Your task to perform on an android device: What's on my calendar today? Image 0: 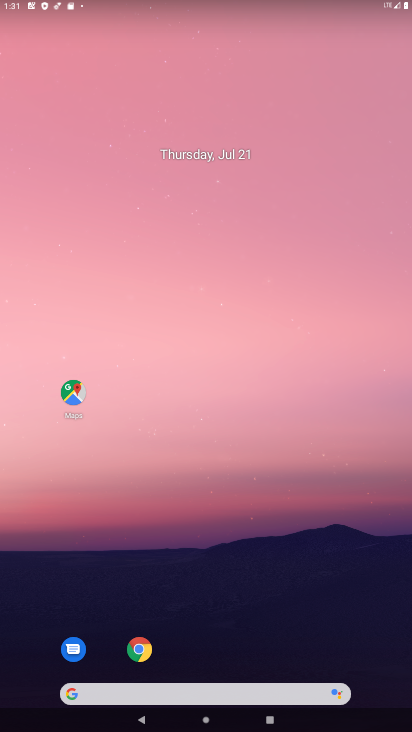
Step 0: drag from (227, 730) to (227, 31)
Your task to perform on an android device: What's on my calendar today? Image 1: 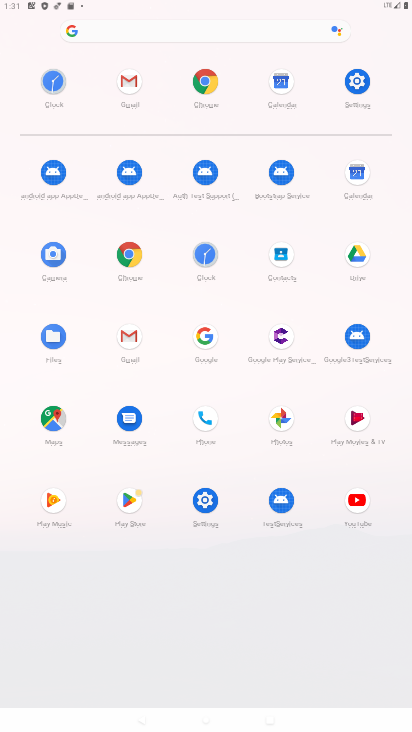
Step 1: click (360, 173)
Your task to perform on an android device: What's on my calendar today? Image 2: 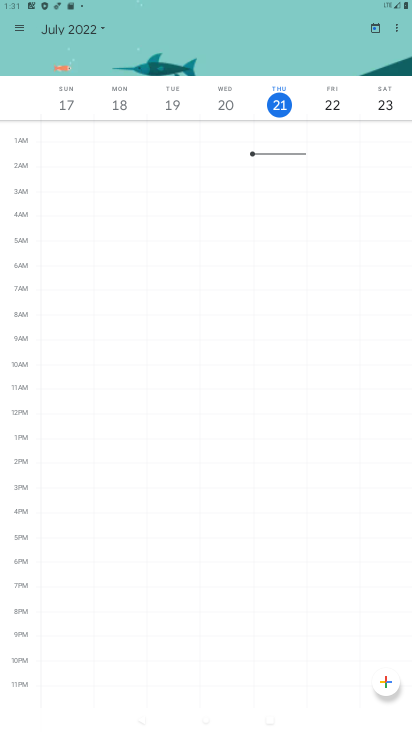
Step 2: click (281, 104)
Your task to perform on an android device: What's on my calendar today? Image 3: 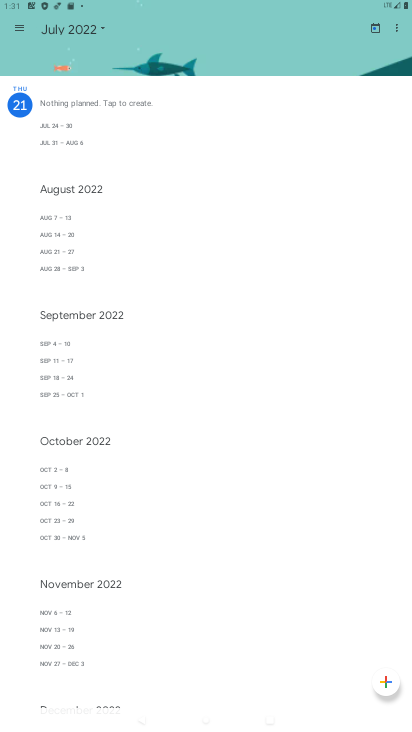
Step 3: click (18, 23)
Your task to perform on an android device: What's on my calendar today? Image 4: 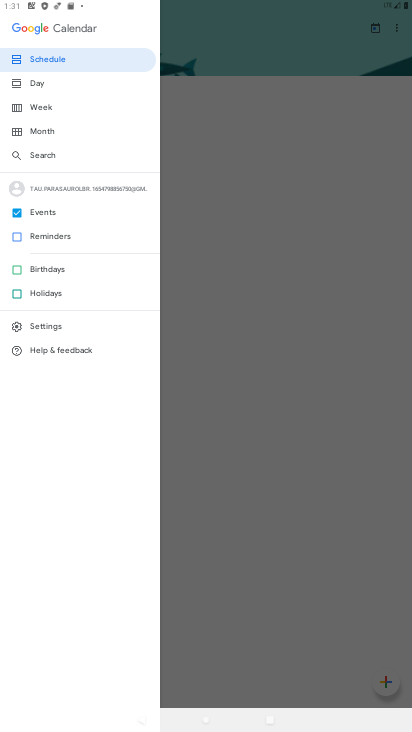
Step 4: click (15, 295)
Your task to perform on an android device: What's on my calendar today? Image 5: 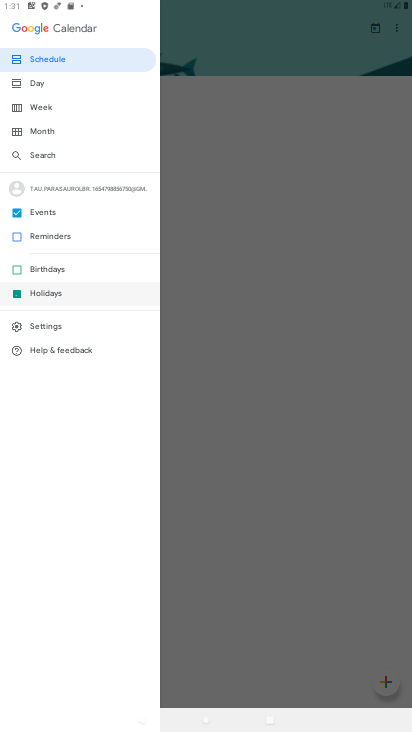
Step 5: click (18, 268)
Your task to perform on an android device: What's on my calendar today? Image 6: 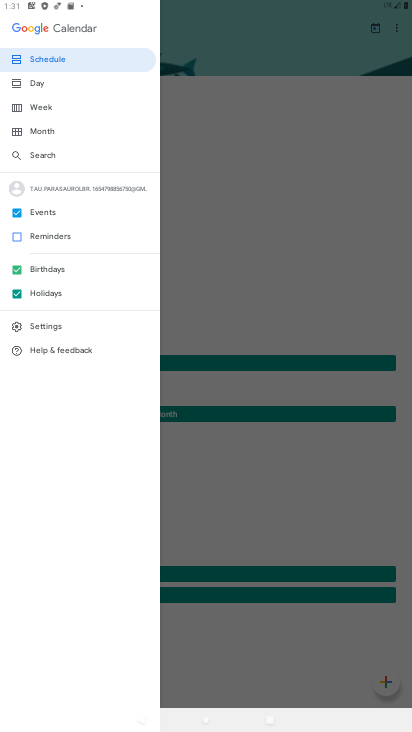
Step 6: click (16, 229)
Your task to perform on an android device: What's on my calendar today? Image 7: 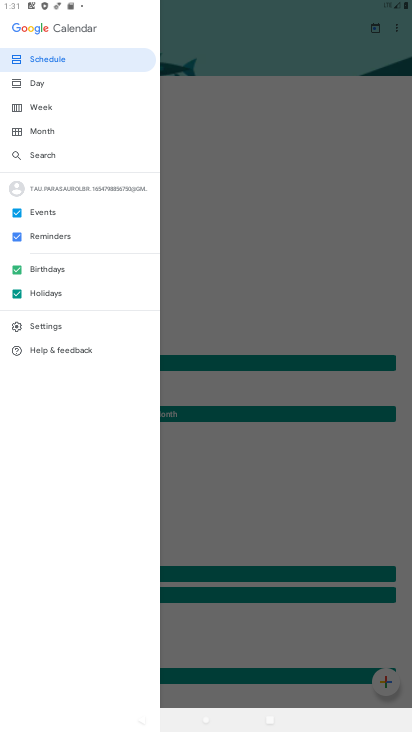
Step 7: click (180, 58)
Your task to perform on an android device: What's on my calendar today? Image 8: 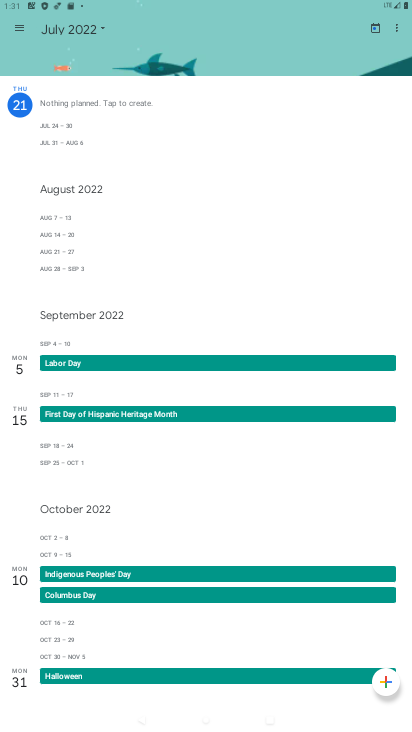
Step 8: click (19, 104)
Your task to perform on an android device: What's on my calendar today? Image 9: 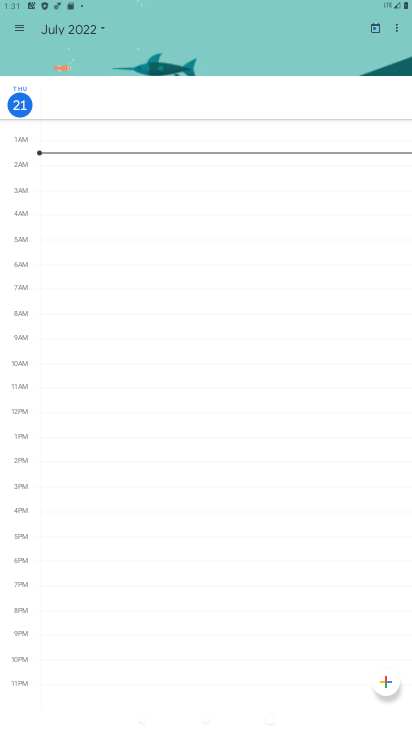
Step 9: task complete